Your task to perform on an android device: Search for Italian restaurants on Maps Image 0: 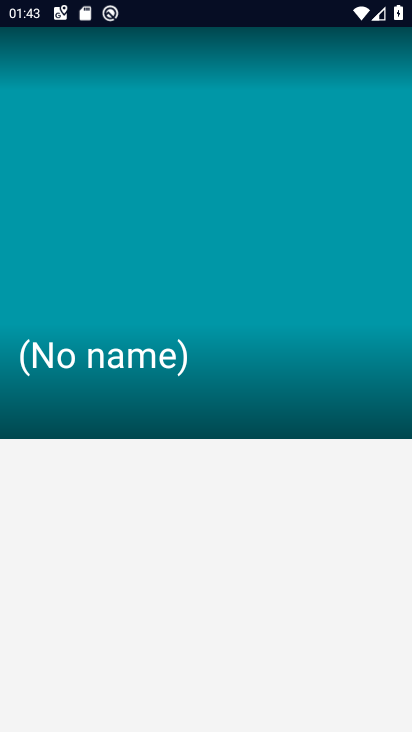
Step 0: drag from (309, 591) to (328, 357)
Your task to perform on an android device: Search for Italian restaurants on Maps Image 1: 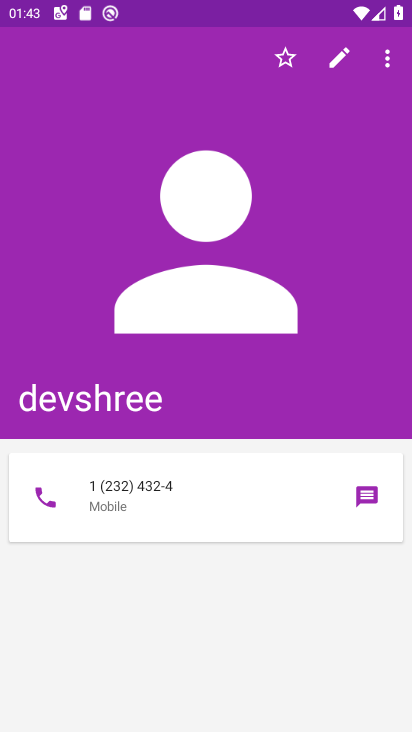
Step 1: press home button
Your task to perform on an android device: Search for Italian restaurants on Maps Image 2: 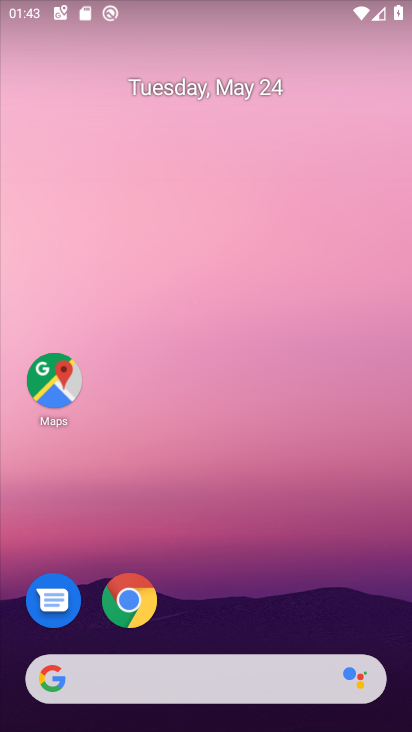
Step 2: click (51, 381)
Your task to perform on an android device: Search for Italian restaurants on Maps Image 3: 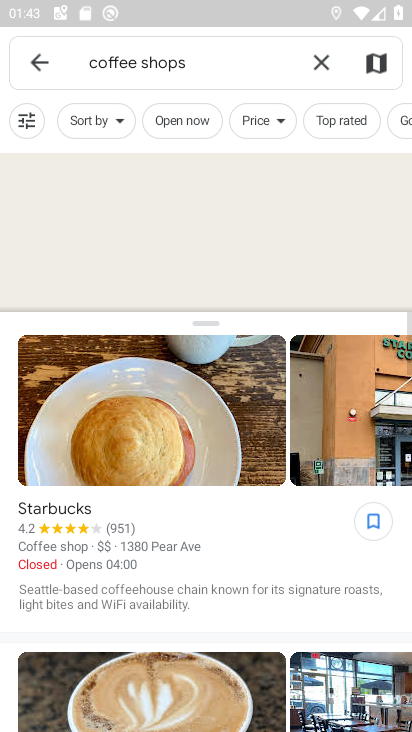
Step 3: click (318, 60)
Your task to perform on an android device: Search for Italian restaurants on Maps Image 4: 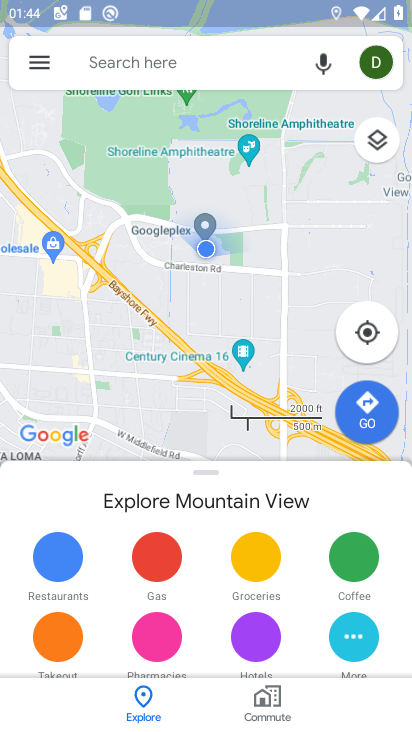
Step 4: click (137, 63)
Your task to perform on an android device: Search for Italian restaurants on Maps Image 5: 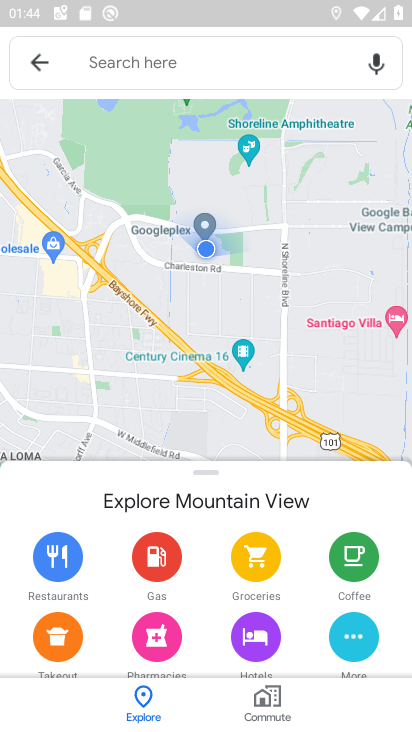
Step 5: click (137, 63)
Your task to perform on an android device: Search for Italian restaurants on Maps Image 6: 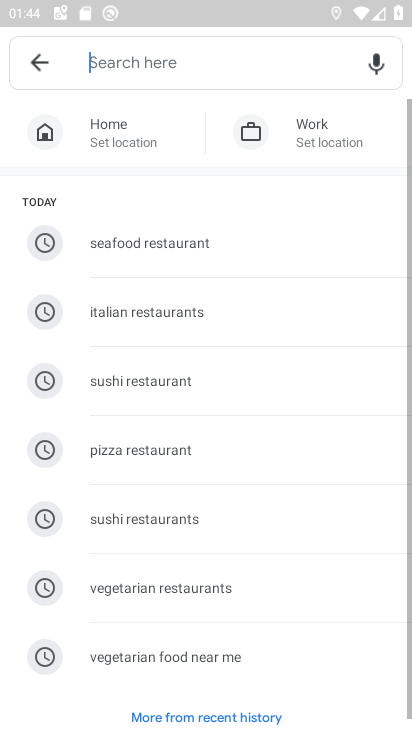
Step 6: click (137, 63)
Your task to perform on an android device: Search for Italian restaurants on Maps Image 7: 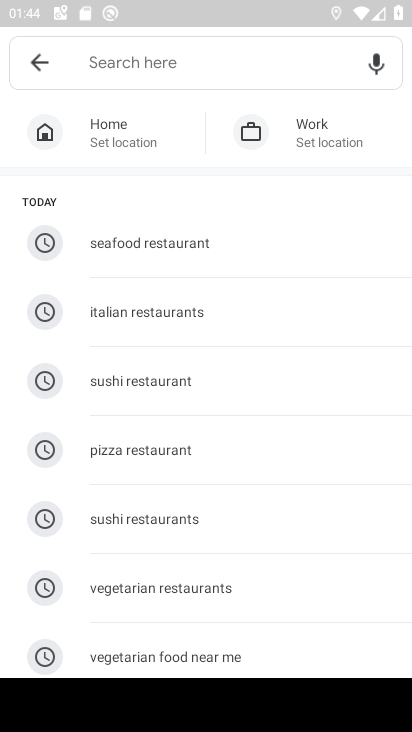
Step 7: click (107, 309)
Your task to perform on an android device: Search for Italian restaurants on Maps Image 8: 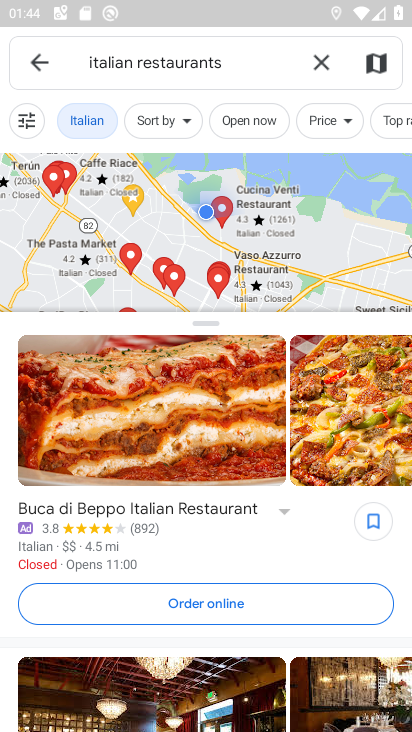
Step 8: task complete